Your task to perform on an android device: add a contact in the contacts app Image 0: 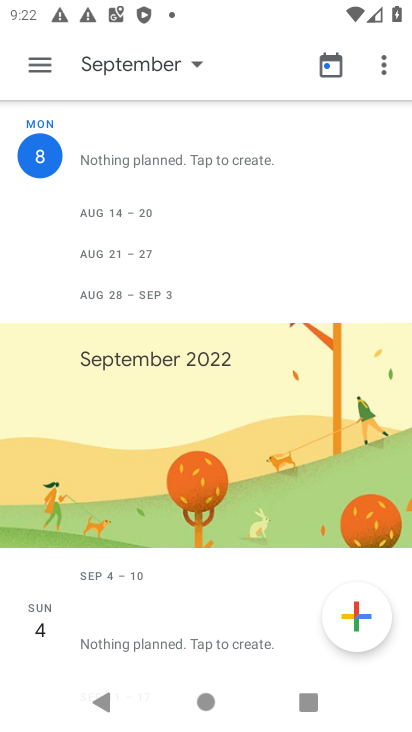
Step 0: press home button
Your task to perform on an android device: add a contact in the contacts app Image 1: 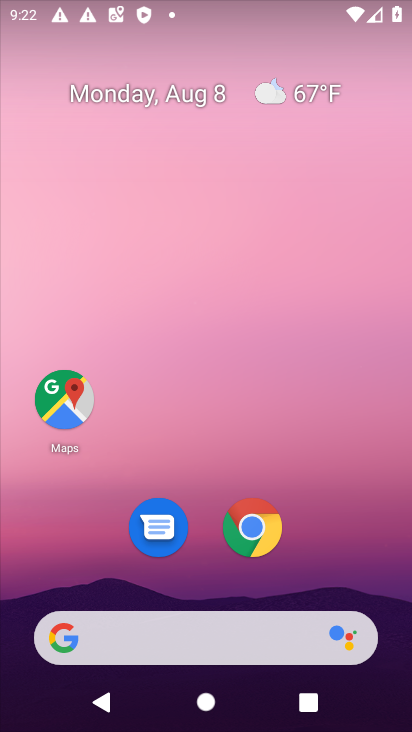
Step 1: drag from (396, 715) to (325, 260)
Your task to perform on an android device: add a contact in the contacts app Image 2: 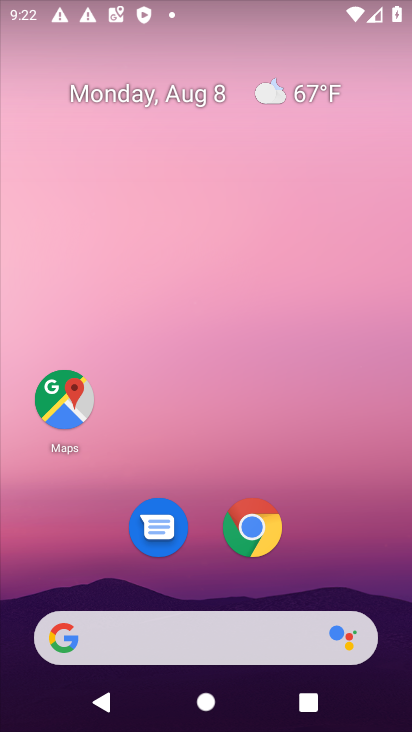
Step 2: drag from (389, 717) to (304, 210)
Your task to perform on an android device: add a contact in the contacts app Image 3: 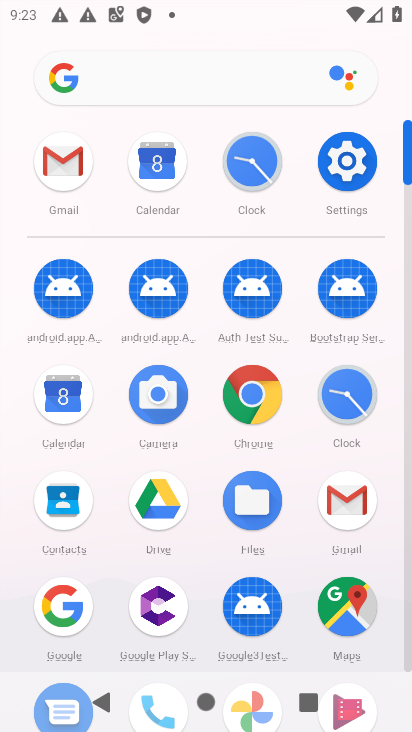
Step 3: click (50, 495)
Your task to perform on an android device: add a contact in the contacts app Image 4: 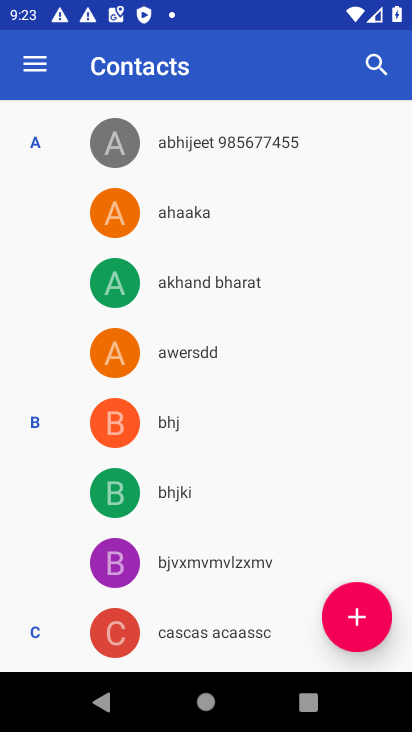
Step 4: click (350, 618)
Your task to perform on an android device: add a contact in the contacts app Image 5: 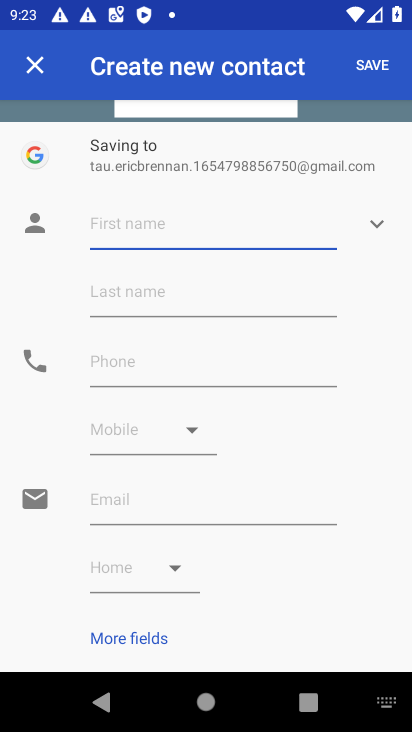
Step 5: type "abuabchuachjb"
Your task to perform on an android device: add a contact in the contacts app Image 6: 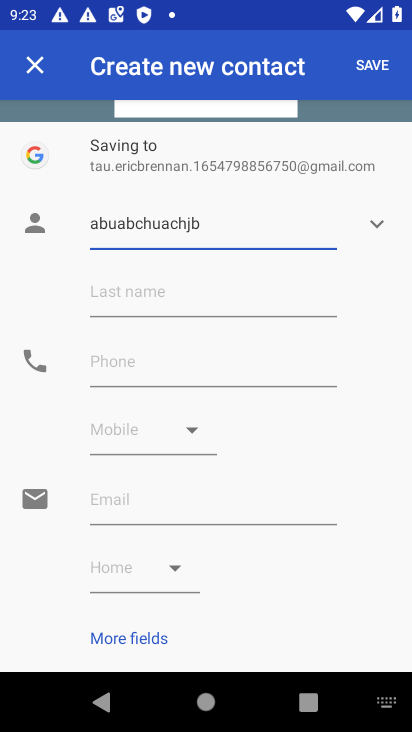
Step 6: click (185, 302)
Your task to perform on an android device: add a contact in the contacts app Image 7: 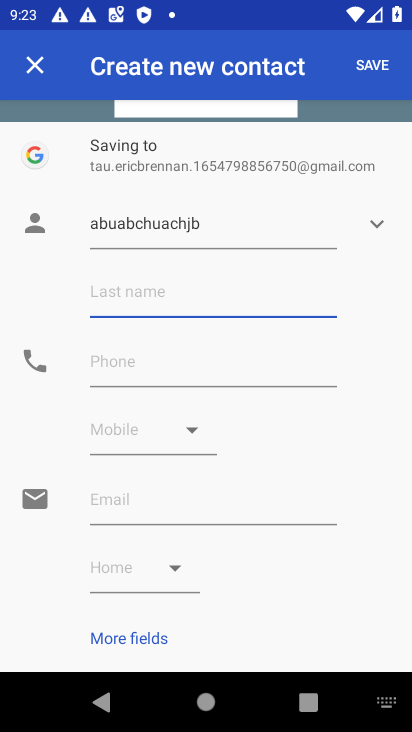
Step 7: type "gvxyavcahj"
Your task to perform on an android device: add a contact in the contacts app Image 8: 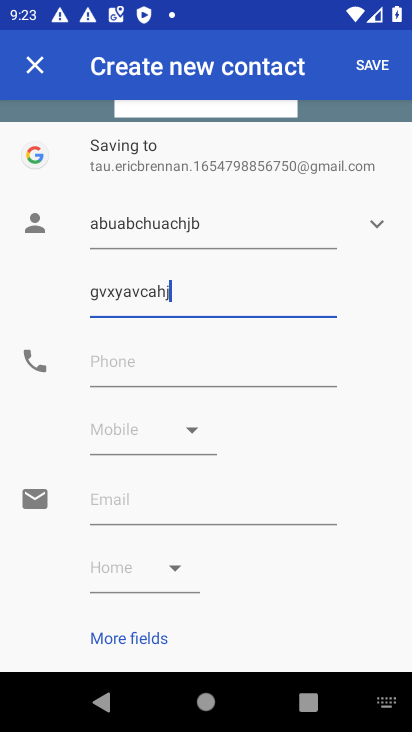
Step 8: click (125, 366)
Your task to perform on an android device: add a contact in the contacts app Image 9: 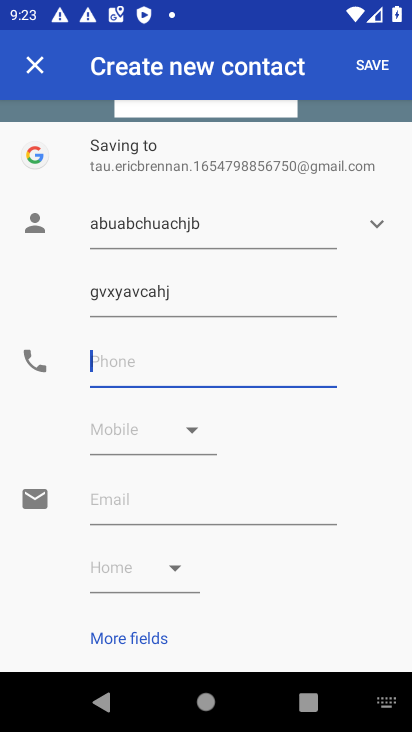
Step 9: type "732646464874"
Your task to perform on an android device: add a contact in the contacts app Image 10: 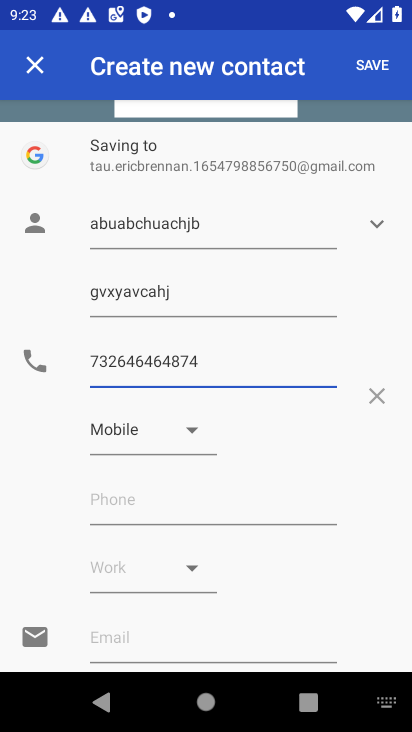
Step 10: click (378, 61)
Your task to perform on an android device: add a contact in the contacts app Image 11: 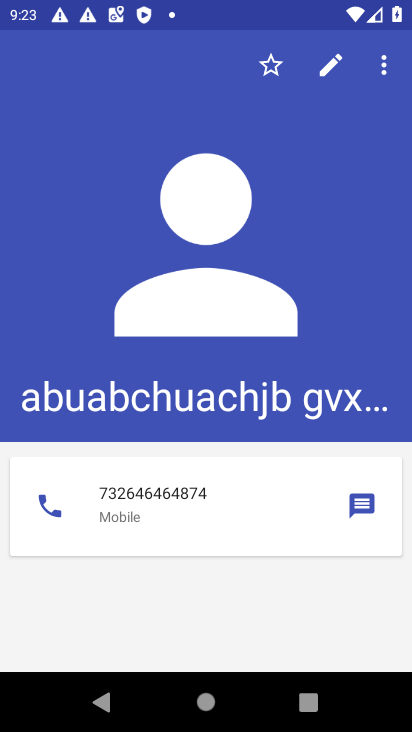
Step 11: task complete